Your task to perform on an android device: Open Chrome and go to settings Image 0: 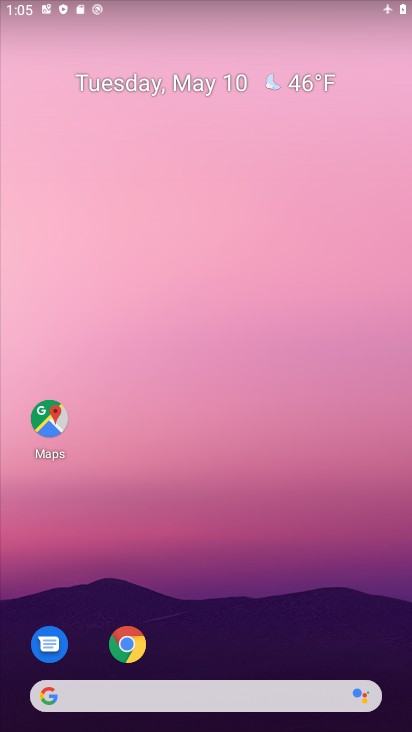
Step 0: drag from (295, 617) to (265, 307)
Your task to perform on an android device: Open Chrome and go to settings Image 1: 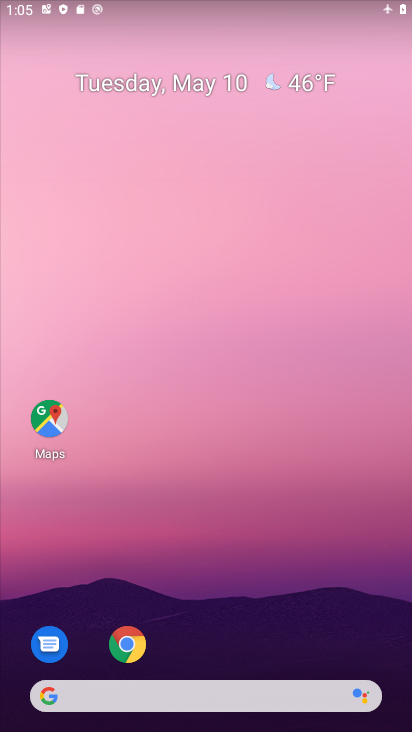
Step 1: drag from (207, 591) to (230, 270)
Your task to perform on an android device: Open Chrome and go to settings Image 2: 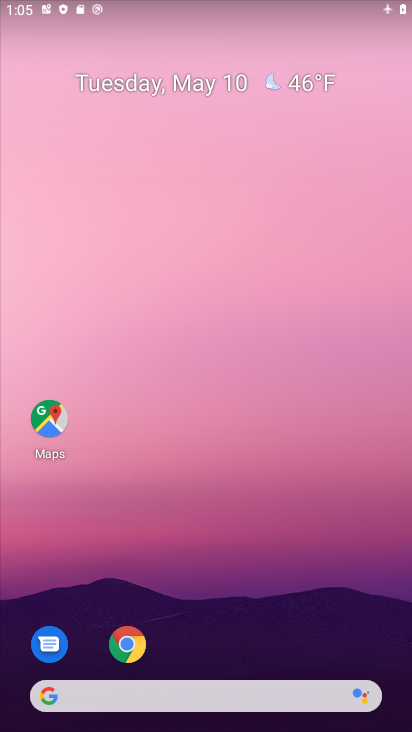
Step 2: drag from (210, 654) to (273, 161)
Your task to perform on an android device: Open Chrome and go to settings Image 3: 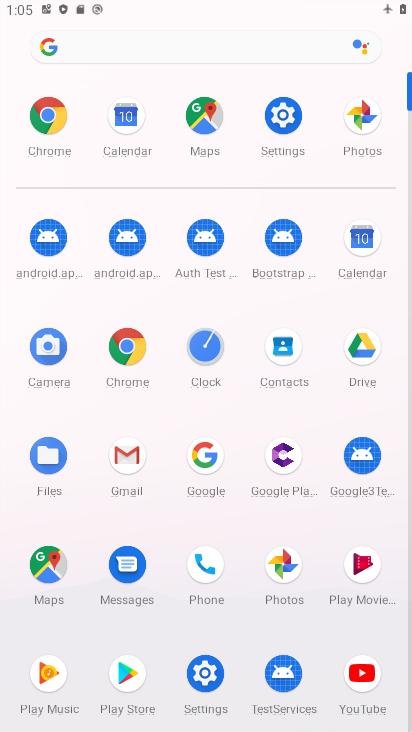
Step 3: click (134, 356)
Your task to perform on an android device: Open Chrome and go to settings Image 4: 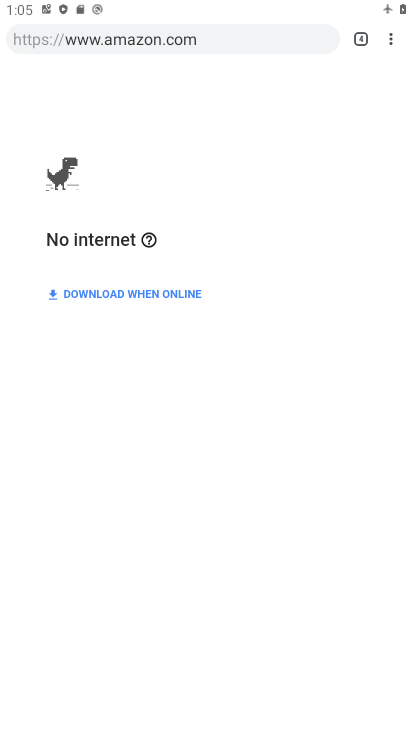
Step 4: click (393, 44)
Your task to perform on an android device: Open Chrome and go to settings Image 5: 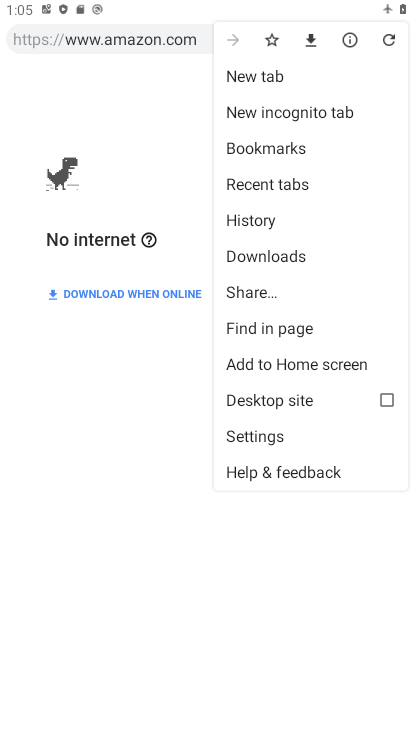
Step 5: click (294, 441)
Your task to perform on an android device: Open Chrome and go to settings Image 6: 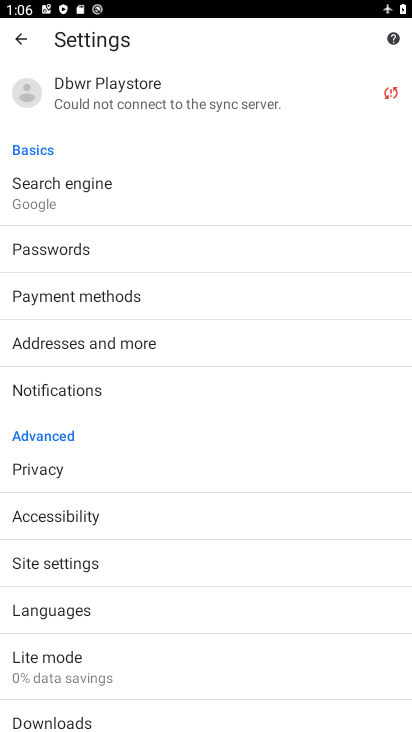
Step 6: task complete